Your task to perform on an android device: toggle pop-ups in chrome Image 0: 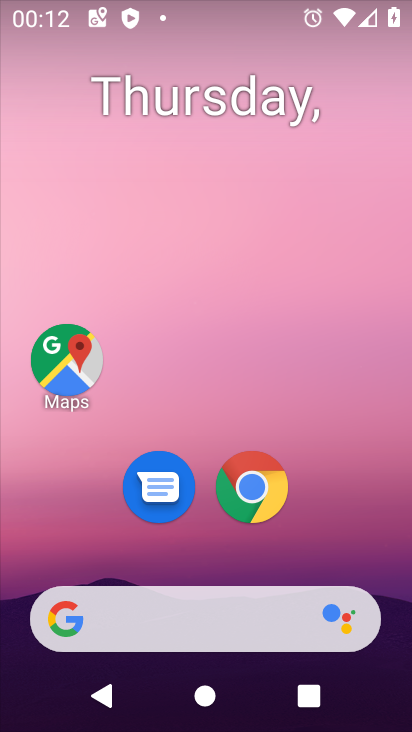
Step 0: click (249, 497)
Your task to perform on an android device: toggle pop-ups in chrome Image 1: 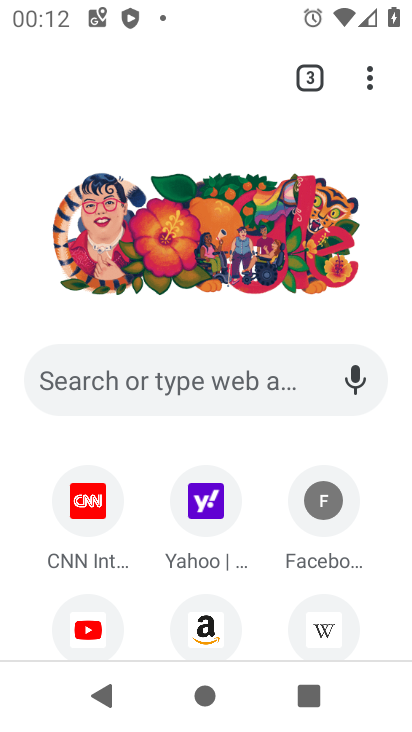
Step 1: click (369, 79)
Your task to perform on an android device: toggle pop-ups in chrome Image 2: 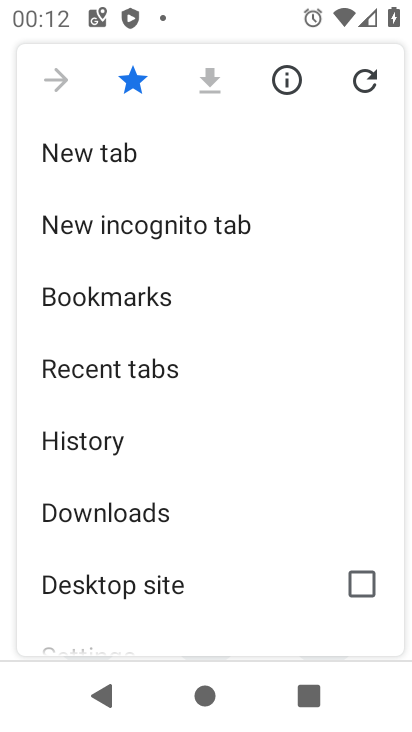
Step 2: drag from (209, 493) to (240, 130)
Your task to perform on an android device: toggle pop-ups in chrome Image 3: 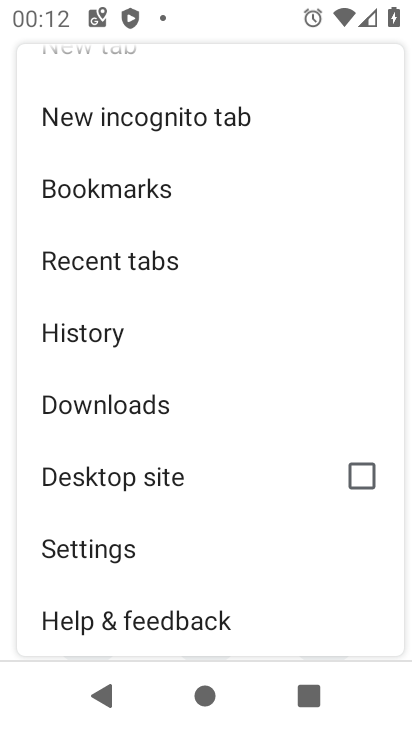
Step 3: click (93, 545)
Your task to perform on an android device: toggle pop-ups in chrome Image 4: 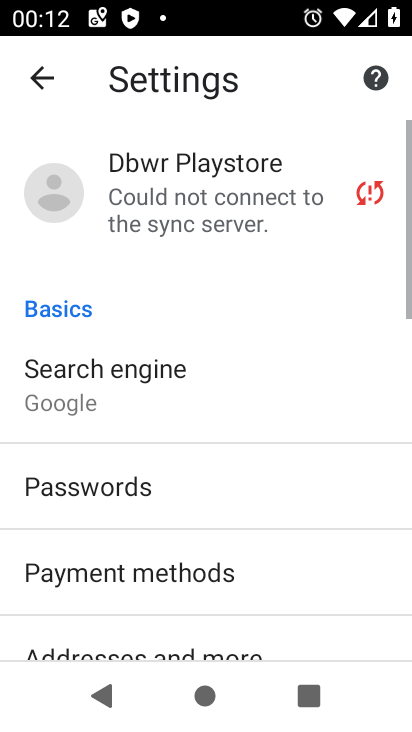
Step 4: drag from (198, 576) to (234, 117)
Your task to perform on an android device: toggle pop-ups in chrome Image 5: 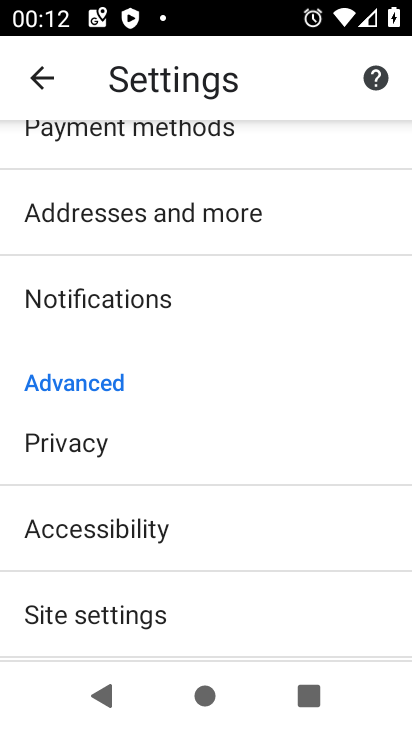
Step 5: drag from (151, 501) to (168, 224)
Your task to perform on an android device: toggle pop-ups in chrome Image 6: 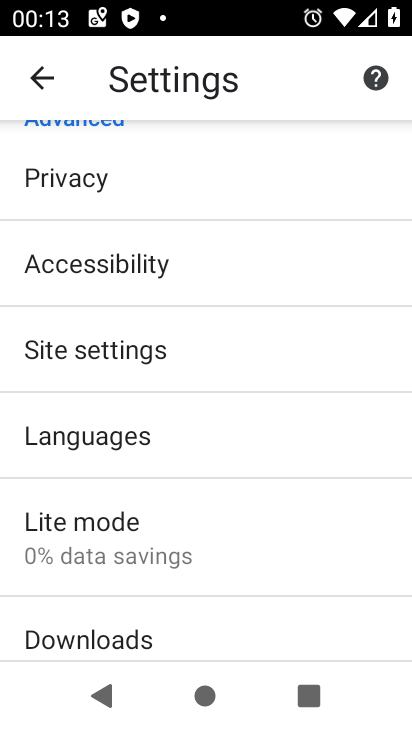
Step 6: click (114, 353)
Your task to perform on an android device: toggle pop-ups in chrome Image 7: 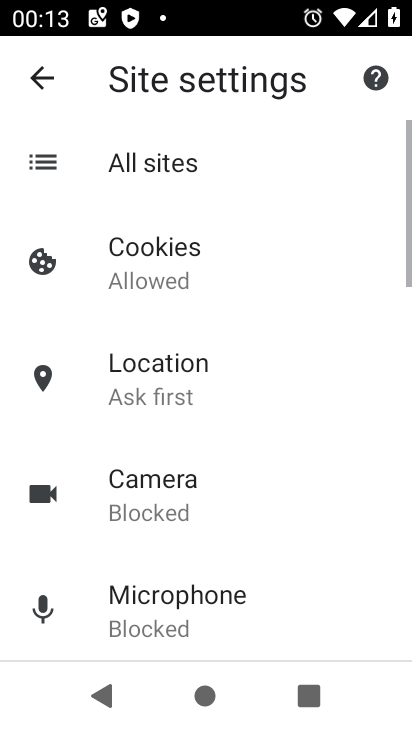
Step 7: drag from (216, 556) to (235, 266)
Your task to perform on an android device: toggle pop-ups in chrome Image 8: 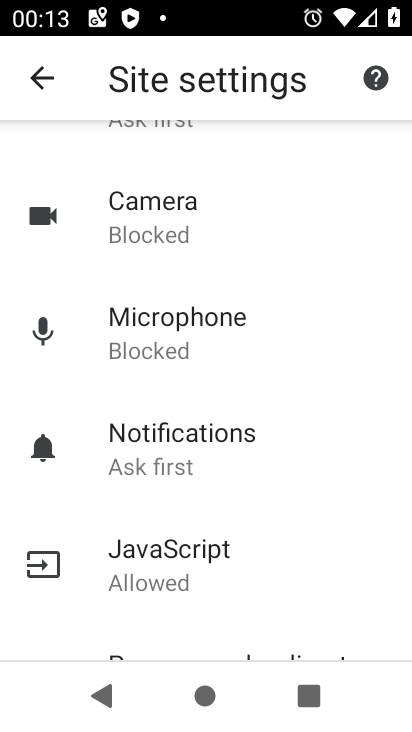
Step 8: drag from (256, 543) to (234, 279)
Your task to perform on an android device: toggle pop-ups in chrome Image 9: 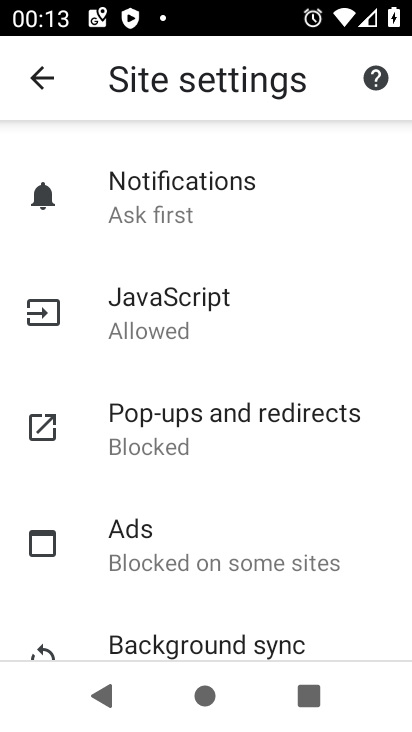
Step 9: click (163, 416)
Your task to perform on an android device: toggle pop-ups in chrome Image 10: 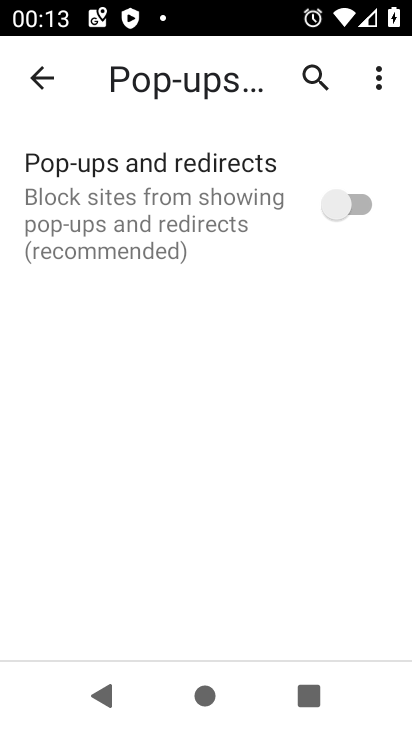
Step 10: click (323, 219)
Your task to perform on an android device: toggle pop-ups in chrome Image 11: 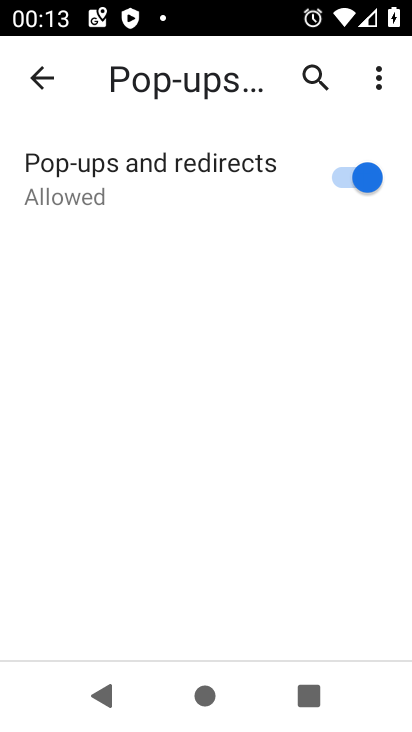
Step 11: task complete